Your task to perform on an android device: Go to location settings Image 0: 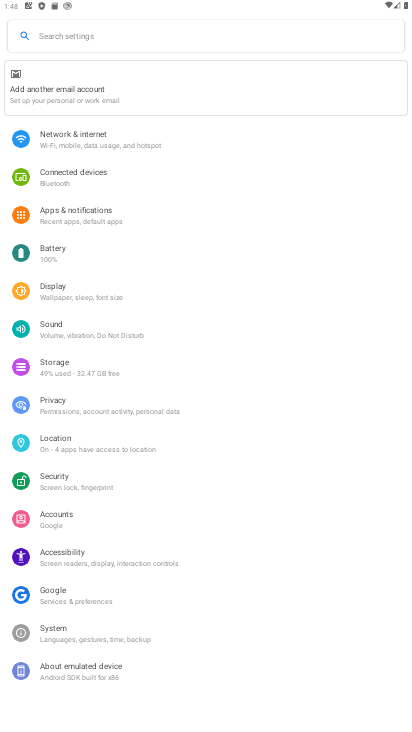
Step 0: click (90, 440)
Your task to perform on an android device: Go to location settings Image 1: 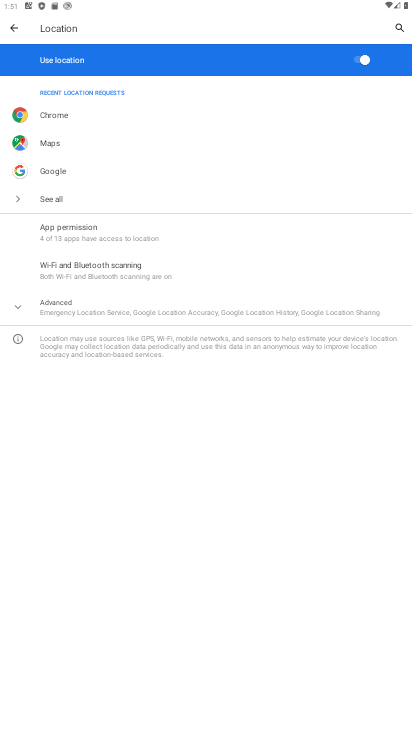
Step 1: task complete